Your task to perform on an android device: Open Google Chrome and click the shortcut for Amazon.com Image 0: 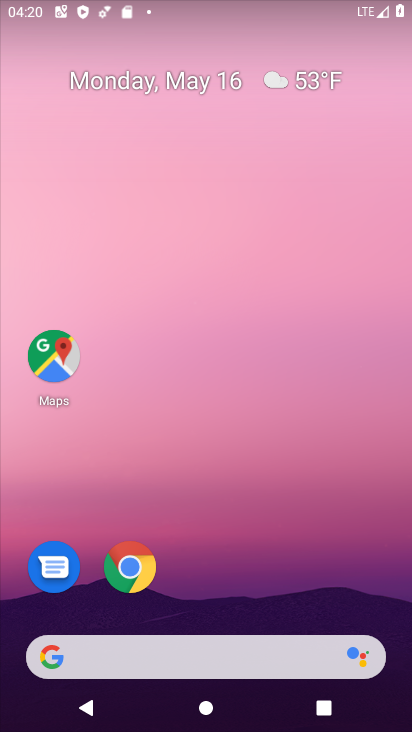
Step 0: drag from (245, 599) to (245, 0)
Your task to perform on an android device: Open Google Chrome and click the shortcut for Amazon.com Image 1: 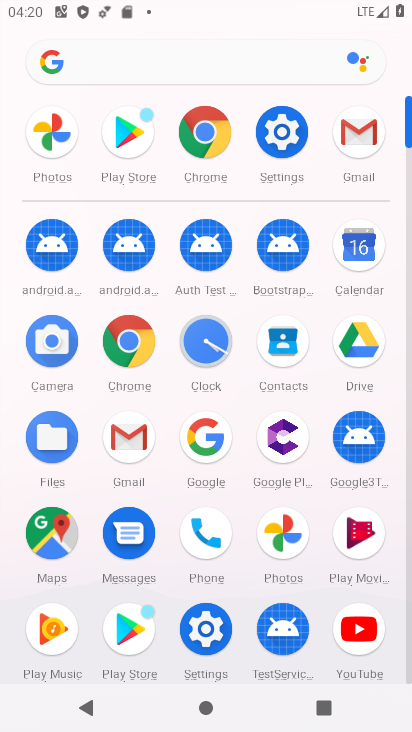
Step 1: click (138, 352)
Your task to perform on an android device: Open Google Chrome and click the shortcut for Amazon.com Image 2: 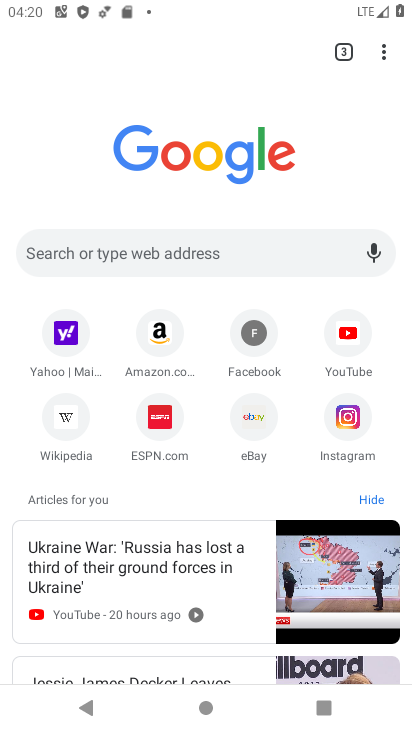
Step 2: click (160, 333)
Your task to perform on an android device: Open Google Chrome and click the shortcut for Amazon.com Image 3: 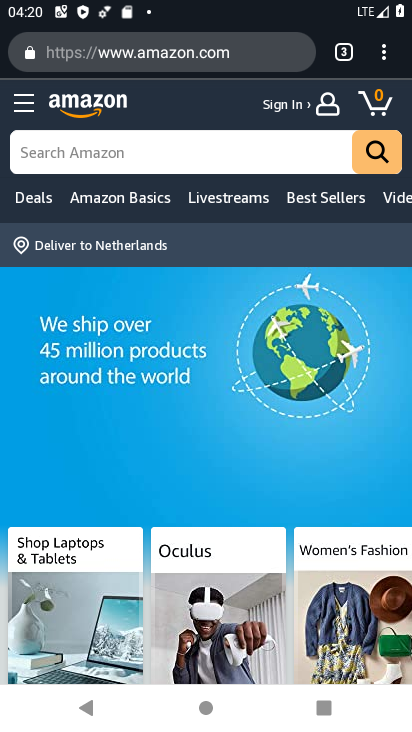
Step 3: click (388, 50)
Your task to perform on an android device: Open Google Chrome and click the shortcut for Amazon.com Image 4: 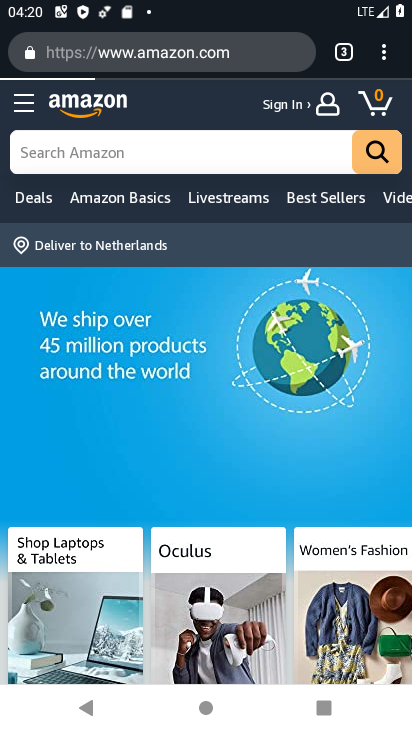
Step 4: drag from (378, 51) to (222, 544)
Your task to perform on an android device: Open Google Chrome and click the shortcut for Amazon.com Image 5: 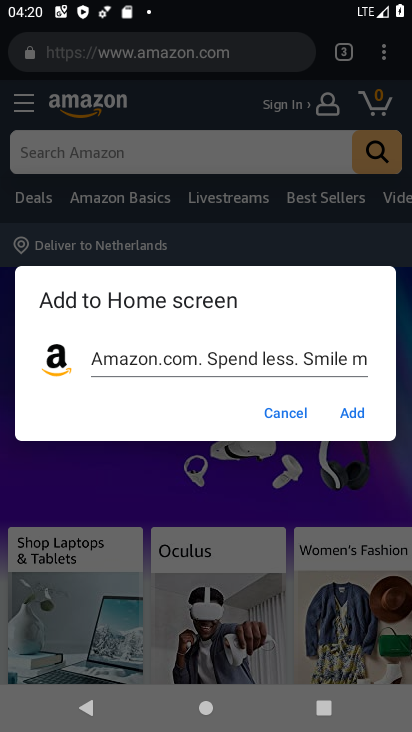
Step 5: click (348, 414)
Your task to perform on an android device: Open Google Chrome and click the shortcut for Amazon.com Image 6: 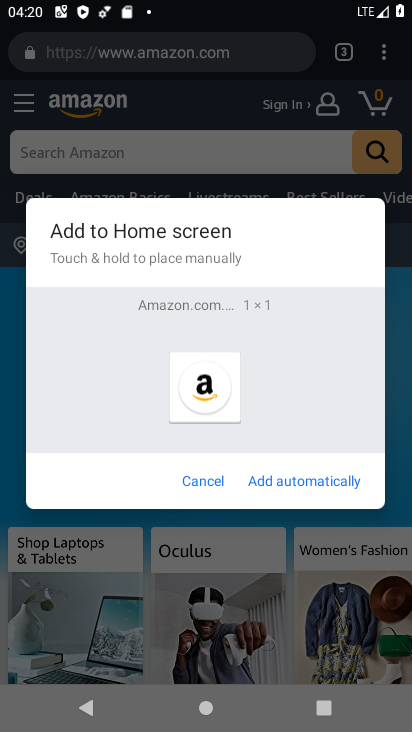
Step 6: click (204, 482)
Your task to perform on an android device: Open Google Chrome and click the shortcut for Amazon.com Image 7: 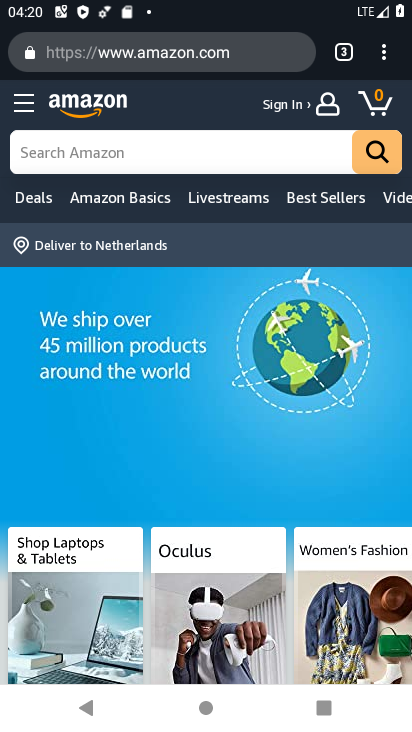
Step 7: task complete